Your task to perform on an android device: toggle show notifications on the lock screen Image 0: 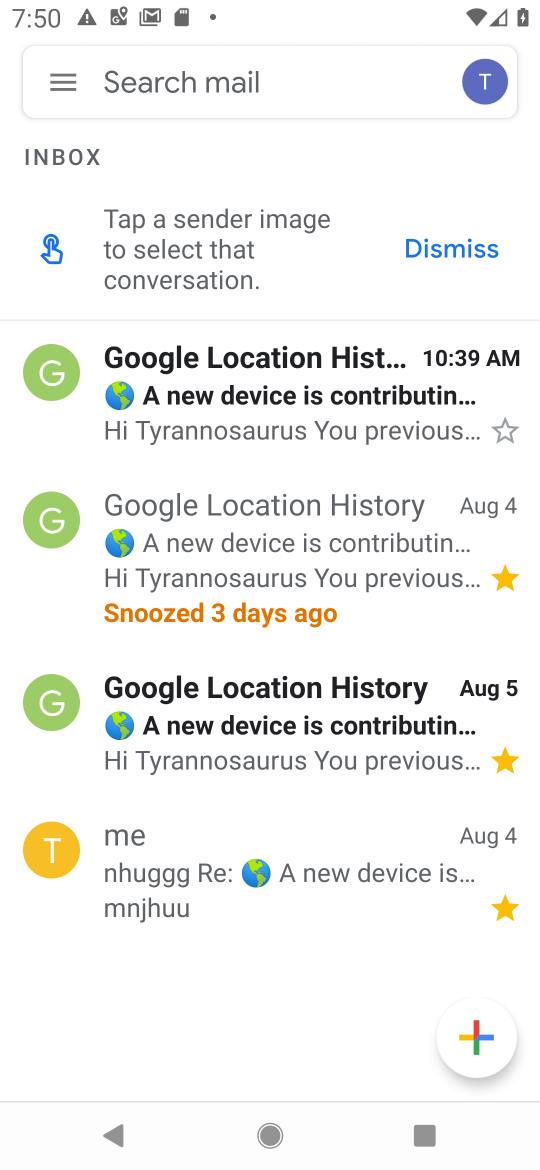
Step 0: press home button
Your task to perform on an android device: toggle show notifications on the lock screen Image 1: 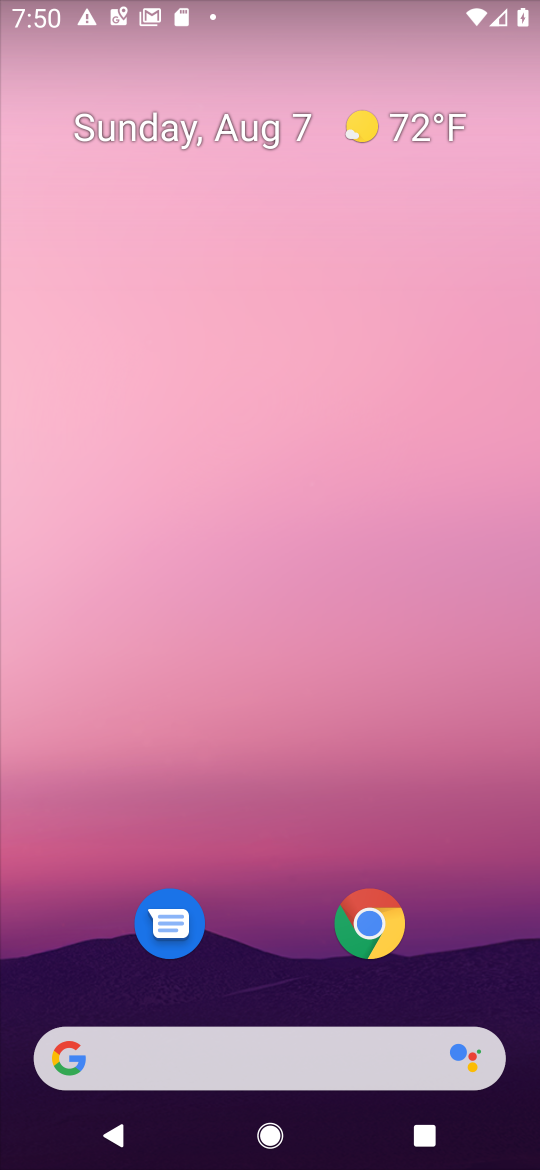
Step 1: drag from (480, 859) to (289, 110)
Your task to perform on an android device: toggle show notifications on the lock screen Image 2: 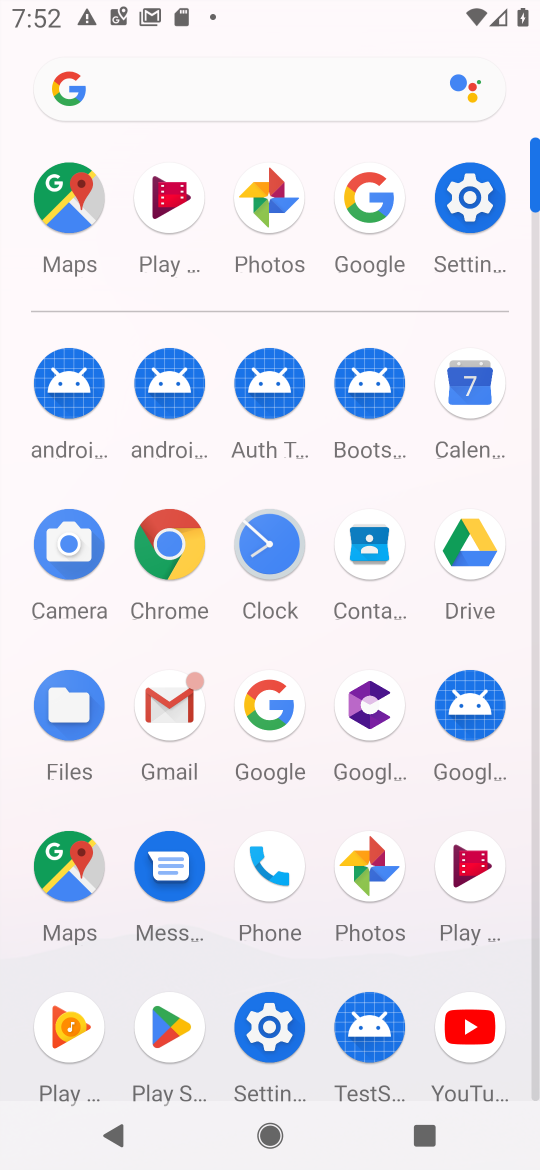
Step 2: click (494, 214)
Your task to perform on an android device: toggle show notifications on the lock screen Image 3: 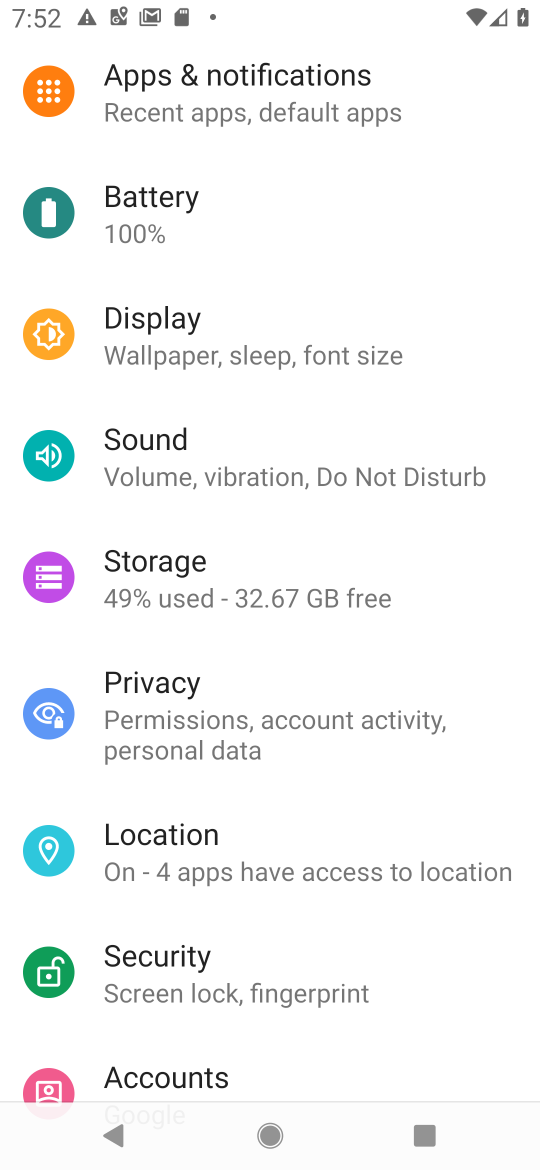
Step 3: click (240, 117)
Your task to perform on an android device: toggle show notifications on the lock screen Image 4: 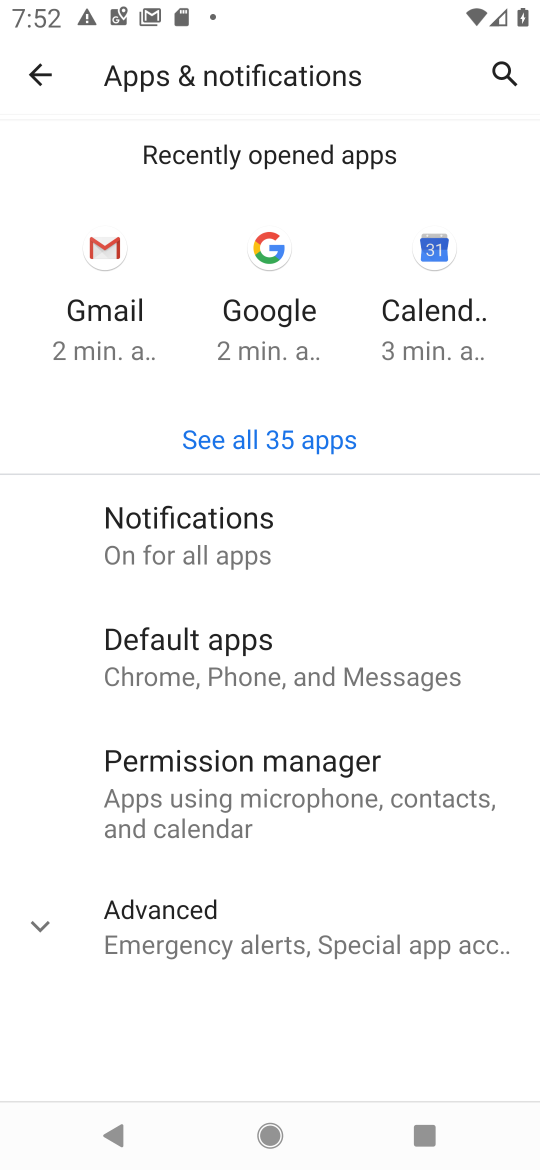
Step 4: click (224, 563)
Your task to perform on an android device: toggle show notifications on the lock screen Image 5: 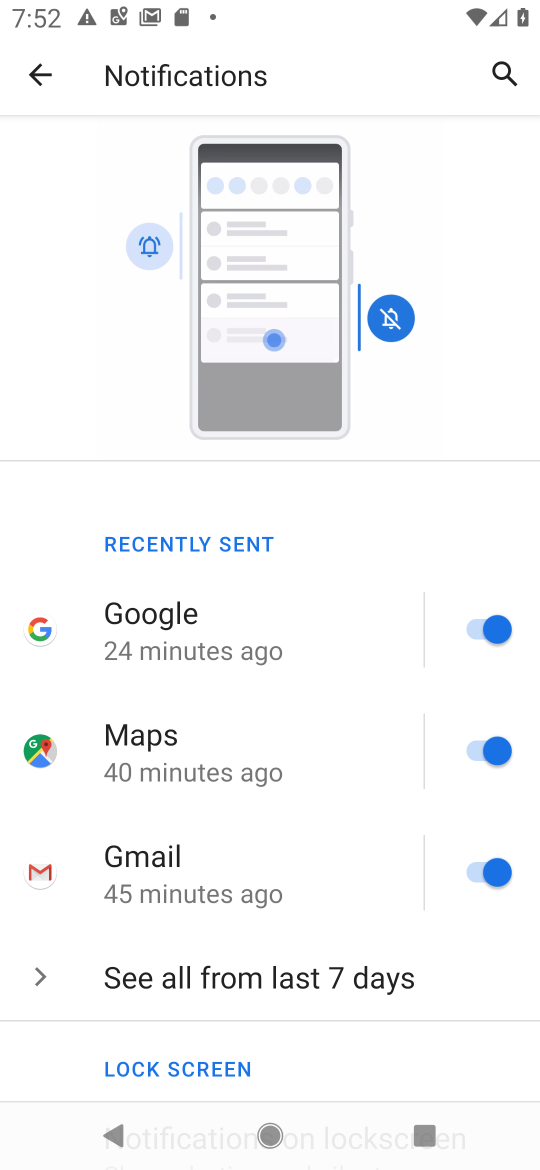
Step 5: drag from (275, 1023) to (262, 308)
Your task to perform on an android device: toggle show notifications on the lock screen Image 6: 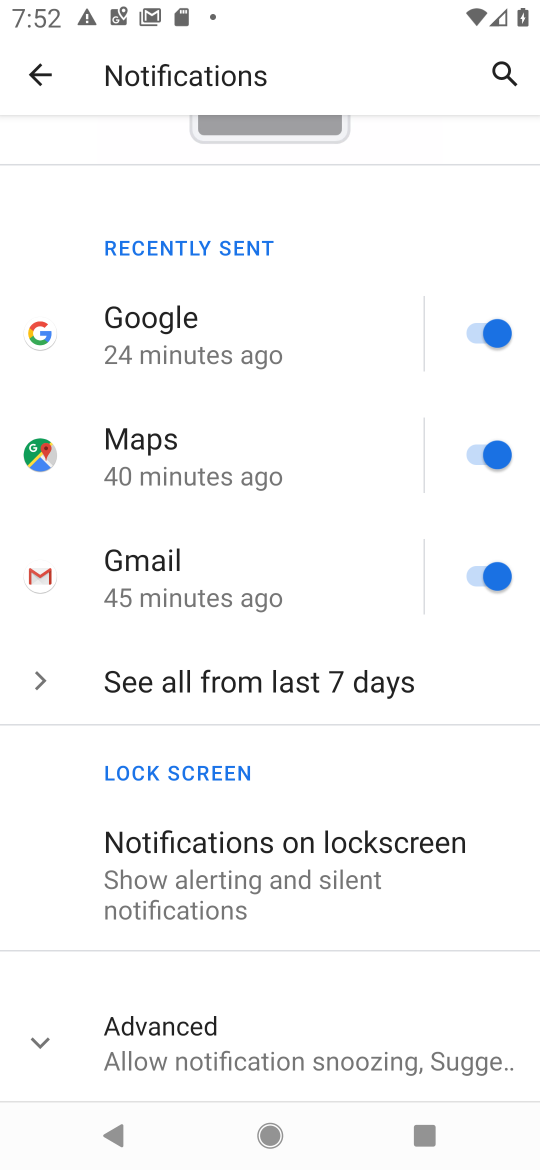
Step 6: click (303, 854)
Your task to perform on an android device: toggle show notifications on the lock screen Image 7: 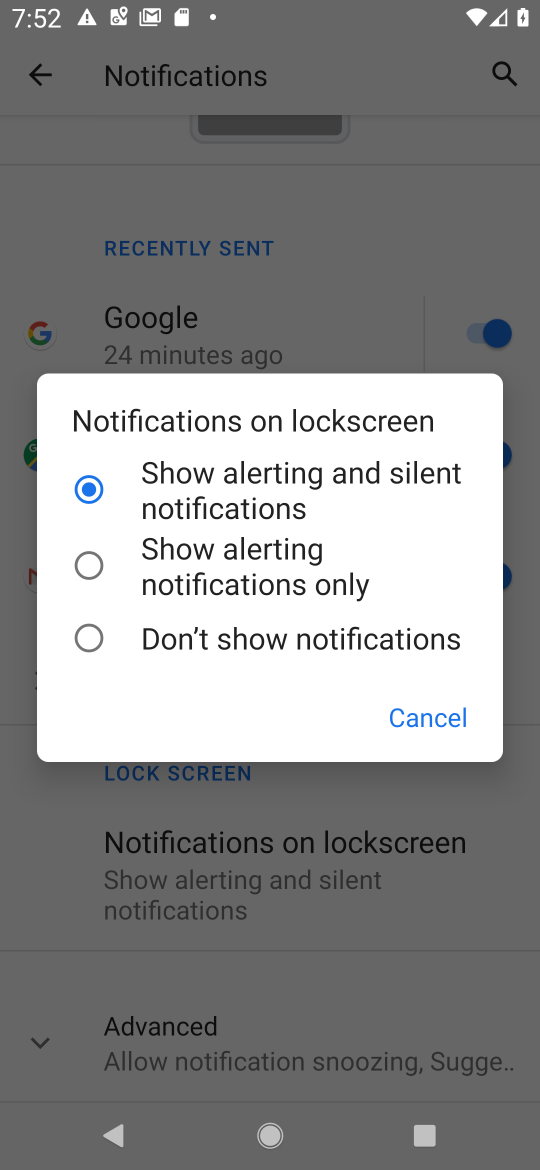
Step 7: click (102, 558)
Your task to perform on an android device: toggle show notifications on the lock screen Image 8: 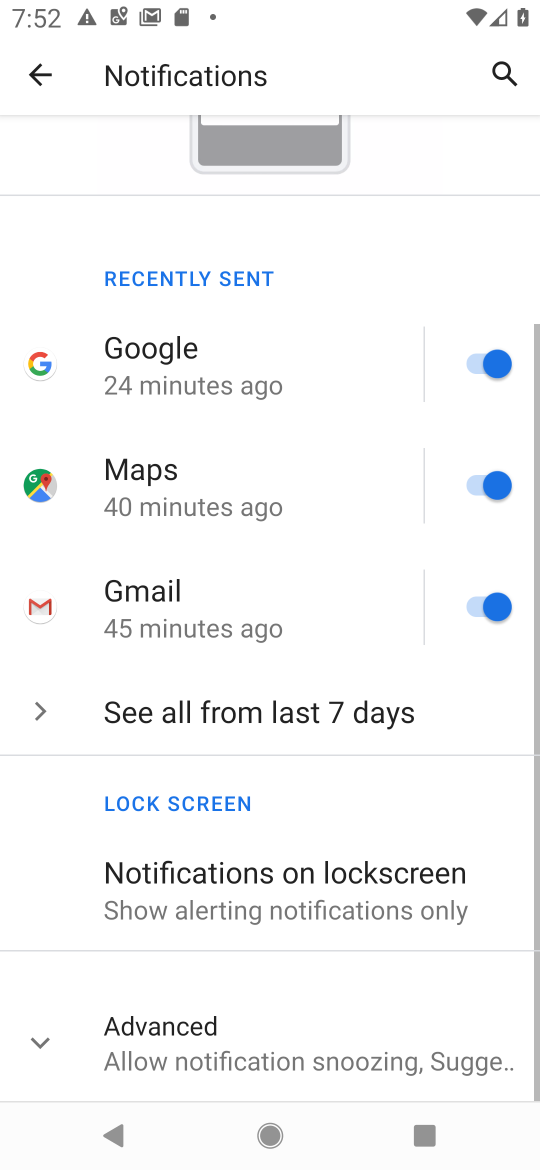
Step 8: task complete